Your task to perform on an android device: change the clock style Image 0: 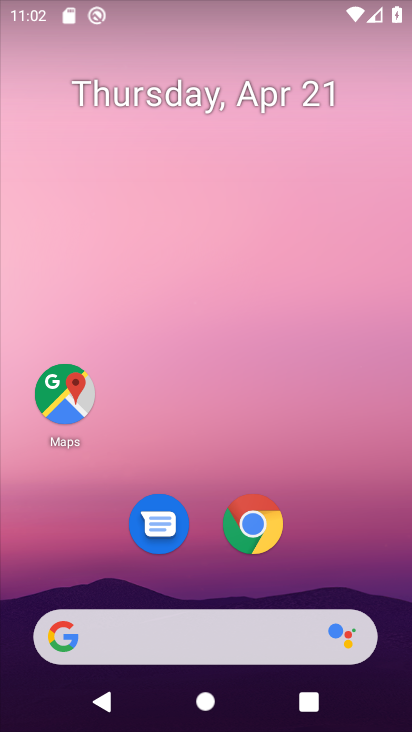
Step 0: drag from (356, 521) to (325, 110)
Your task to perform on an android device: change the clock style Image 1: 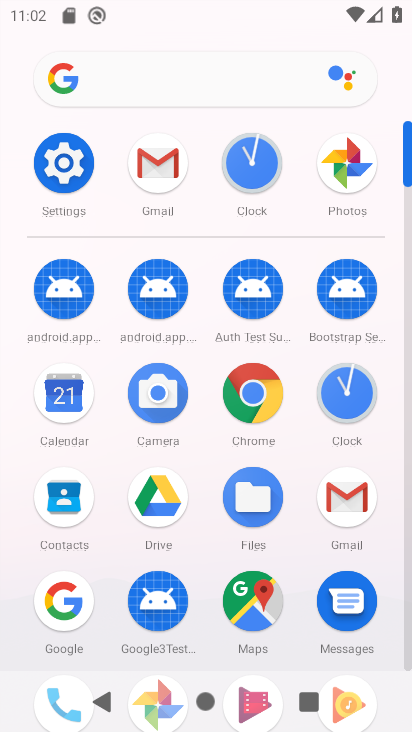
Step 1: click (342, 394)
Your task to perform on an android device: change the clock style Image 2: 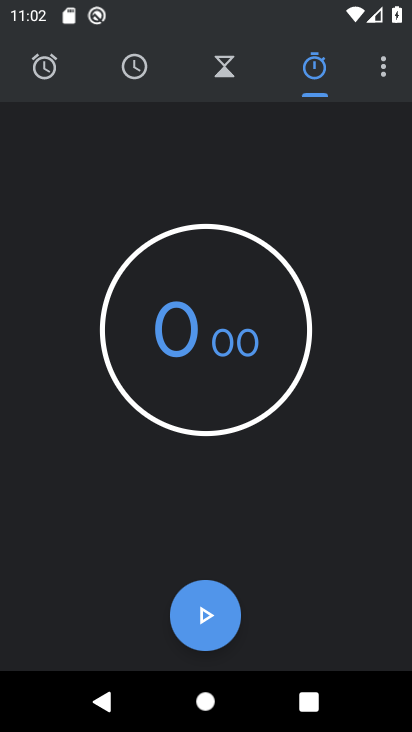
Step 2: click (380, 72)
Your task to perform on an android device: change the clock style Image 3: 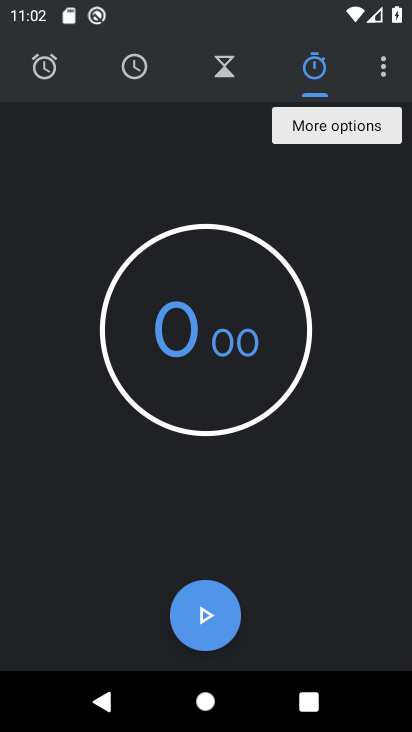
Step 3: click (383, 67)
Your task to perform on an android device: change the clock style Image 4: 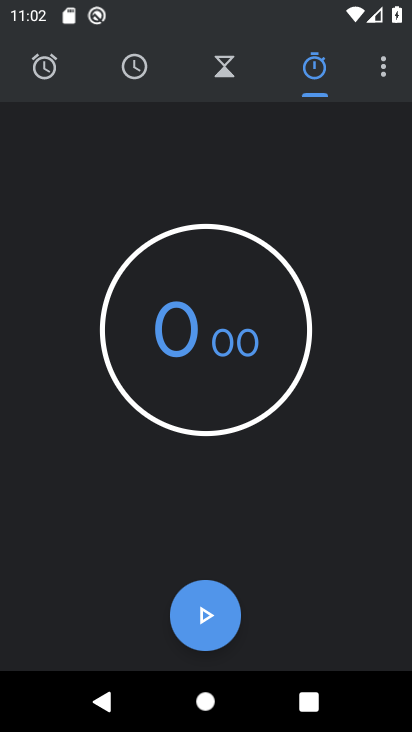
Step 4: click (386, 61)
Your task to perform on an android device: change the clock style Image 5: 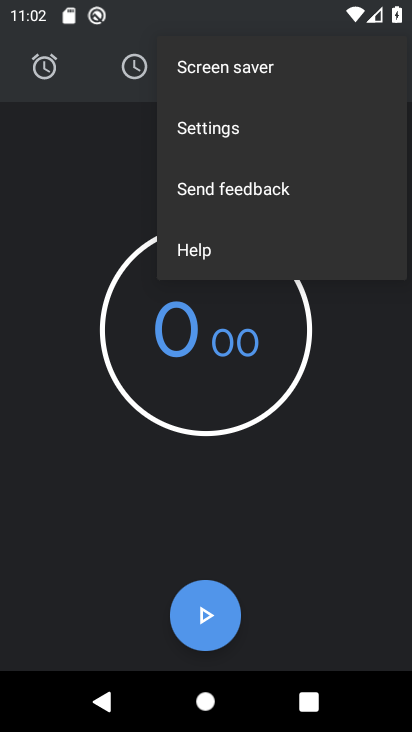
Step 5: click (305, 138)
Your task to perform on an android device: change the clock style Image 6: 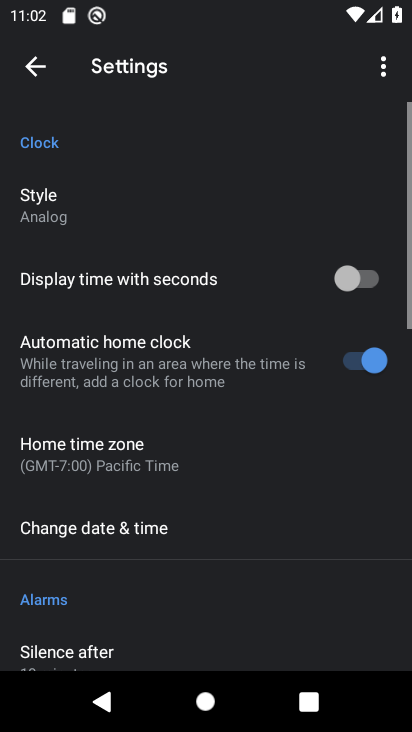
Step 6: click (254, 210)
Your task to perform on an android device: change the clock style Image 7: 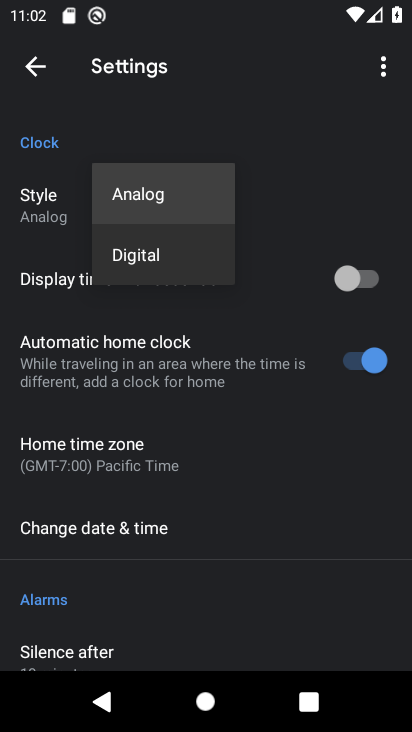
Step 7: click (208, 244)
Your task to perform on an android device: change the clock style Image 8: 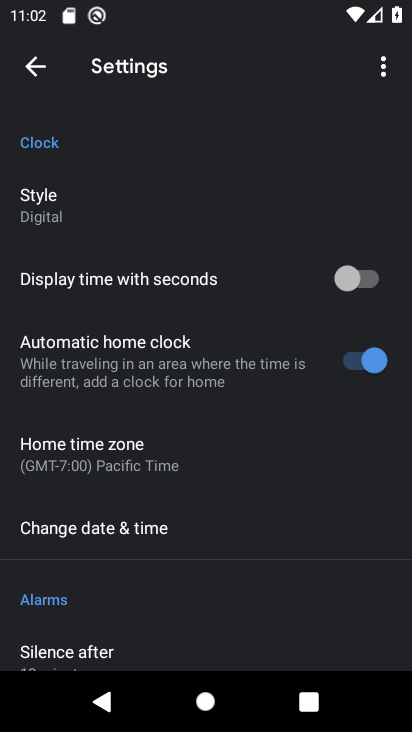
Step 8: click (33, 75)
Your task to perform on an android device: change the clock style Image 9: 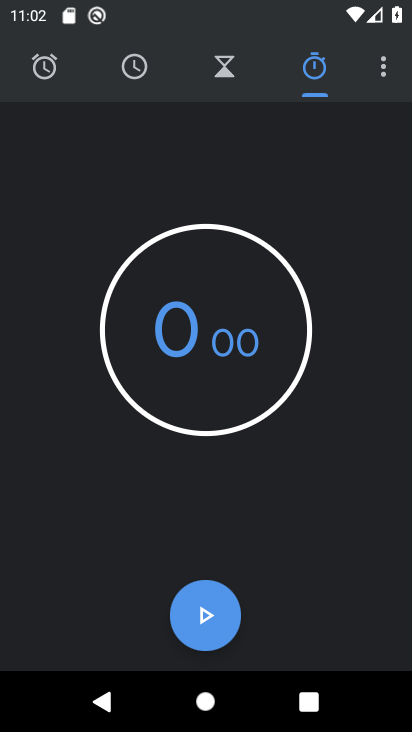
Step 9: click (135, 67)
Your task to perform on an android device: change the clock style Image 10: 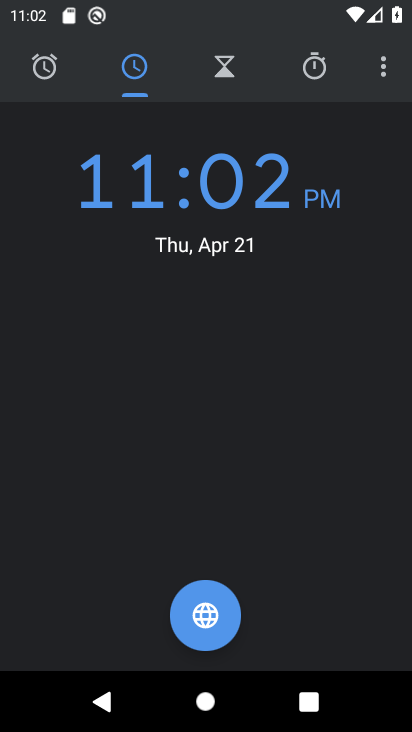
Step 10: task complete